Your task to perform on an android device: open a bookmark in the chrome app Image 0: 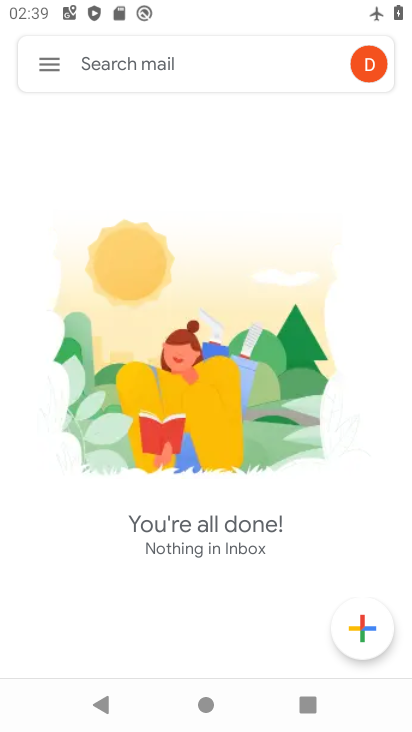
Step 0: drag from (208, 537) to (245, 236)
Your task to perform on an android device: open a bookmark in the chrome app Image 1: 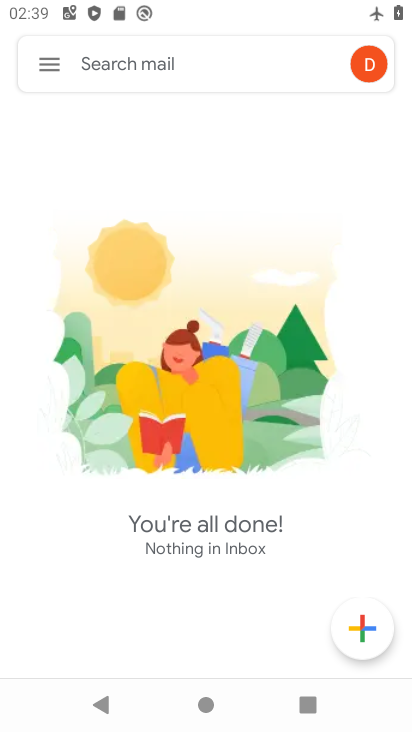
Step 1: press home button
Your task to perform on an android device: open a bookmark in the chrome app Image 2: 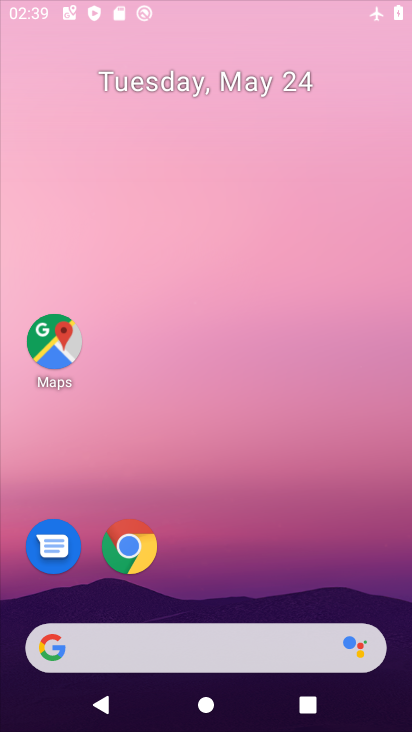
Step 2: drag from (256, 582) to (285, 298)
Your task to perform on an android device: open a bookmark in the chrome app Image 3: 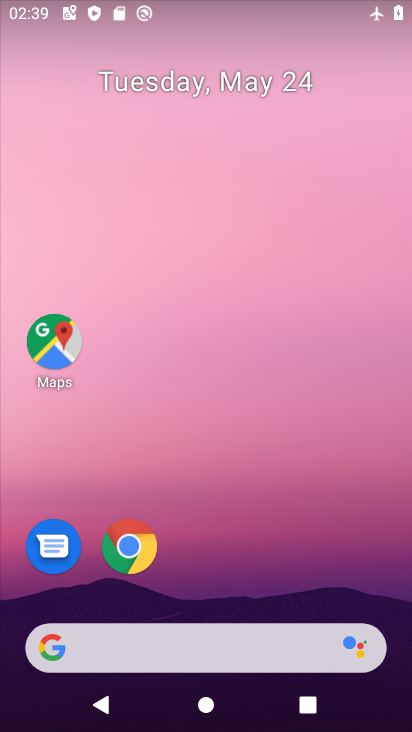
Step 3: drag from (210, 592) to (298, 229)
Your task to perform on an android device: open a bookmark in the chrome app Image 4: 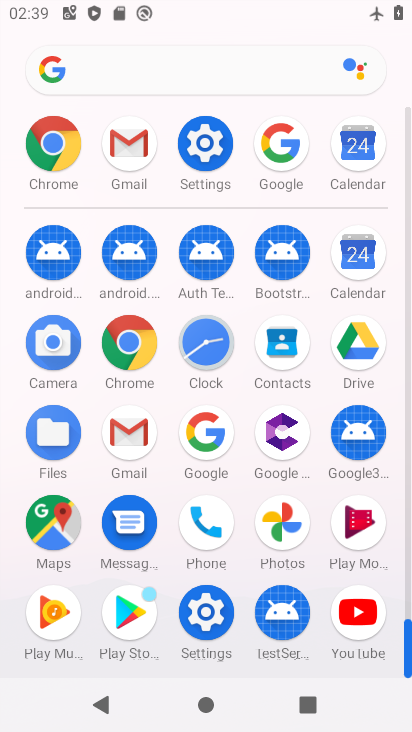
Step 4: click (126, 356)
Your task to perform on an android device: open a bookmark in the chrome app Image 5: 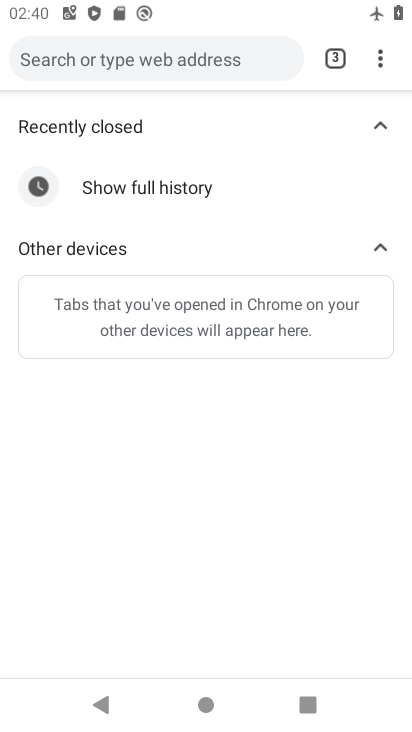
Step 5: click (377, 44)
Your task to perform on an android device: open a bookmark in the chrome app Image 6: 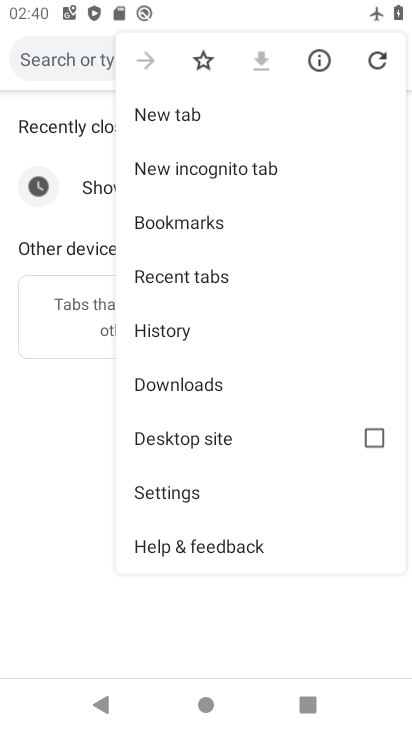
Step 6: click (221, 213)
Your task to perform on an android device: open a bookmark in the chrome app Image 7: 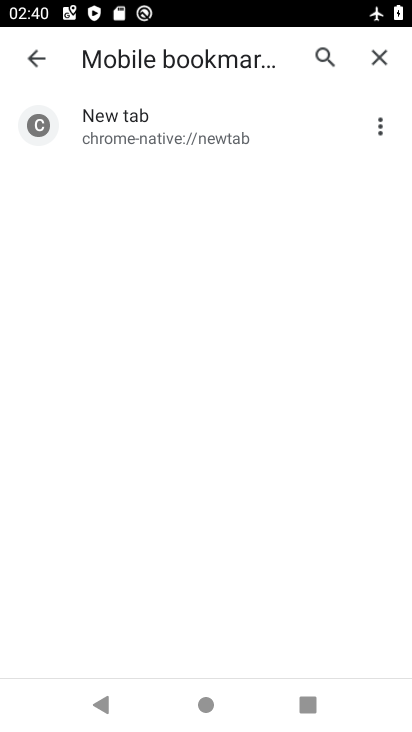
Step 7: task complete